Your task to perform on an android device: Go to Reddit.com Image 0: 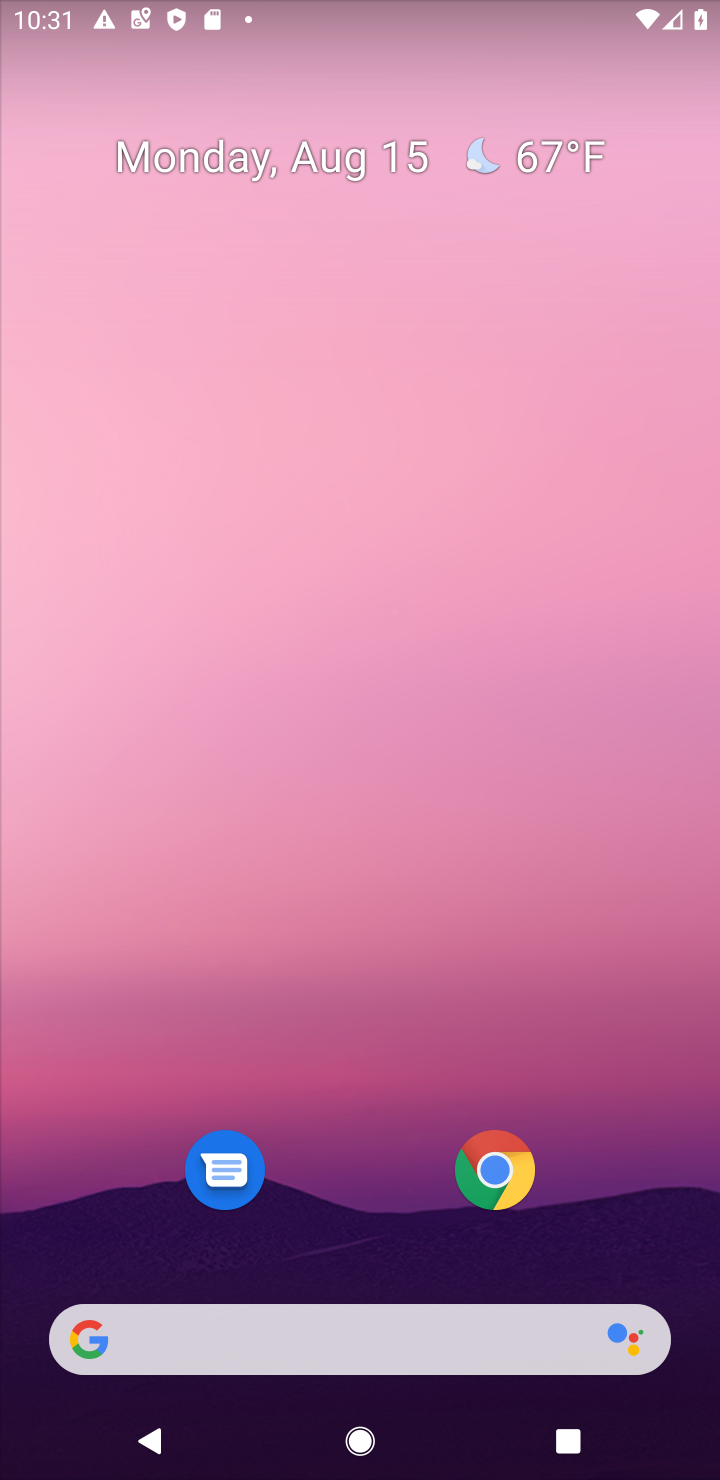
Step 0: click (491, 1161)
Your task to perform on an android device: Go to Reddit.com Image 1: 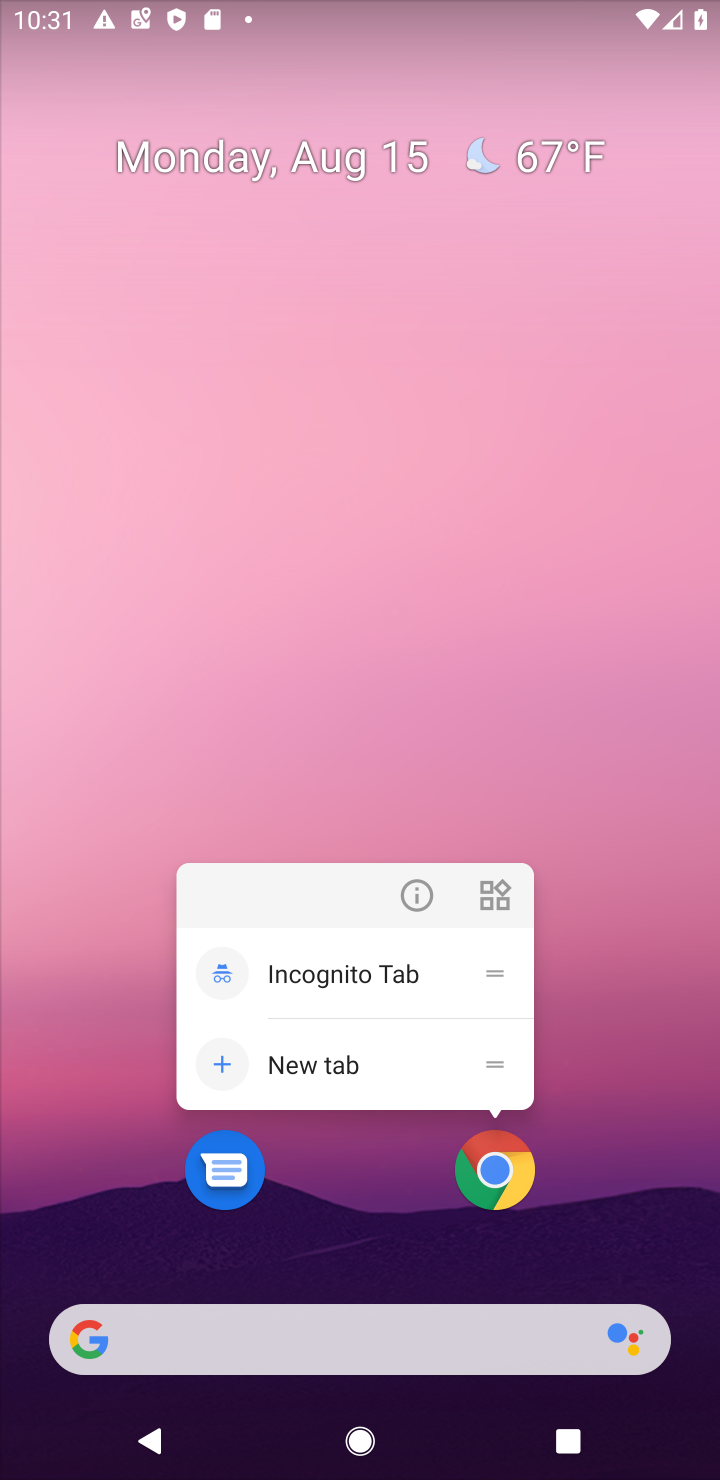
Step 1: click (491, 1158)
Your task to perform on an android device: Go to Reddit.com Image 2: 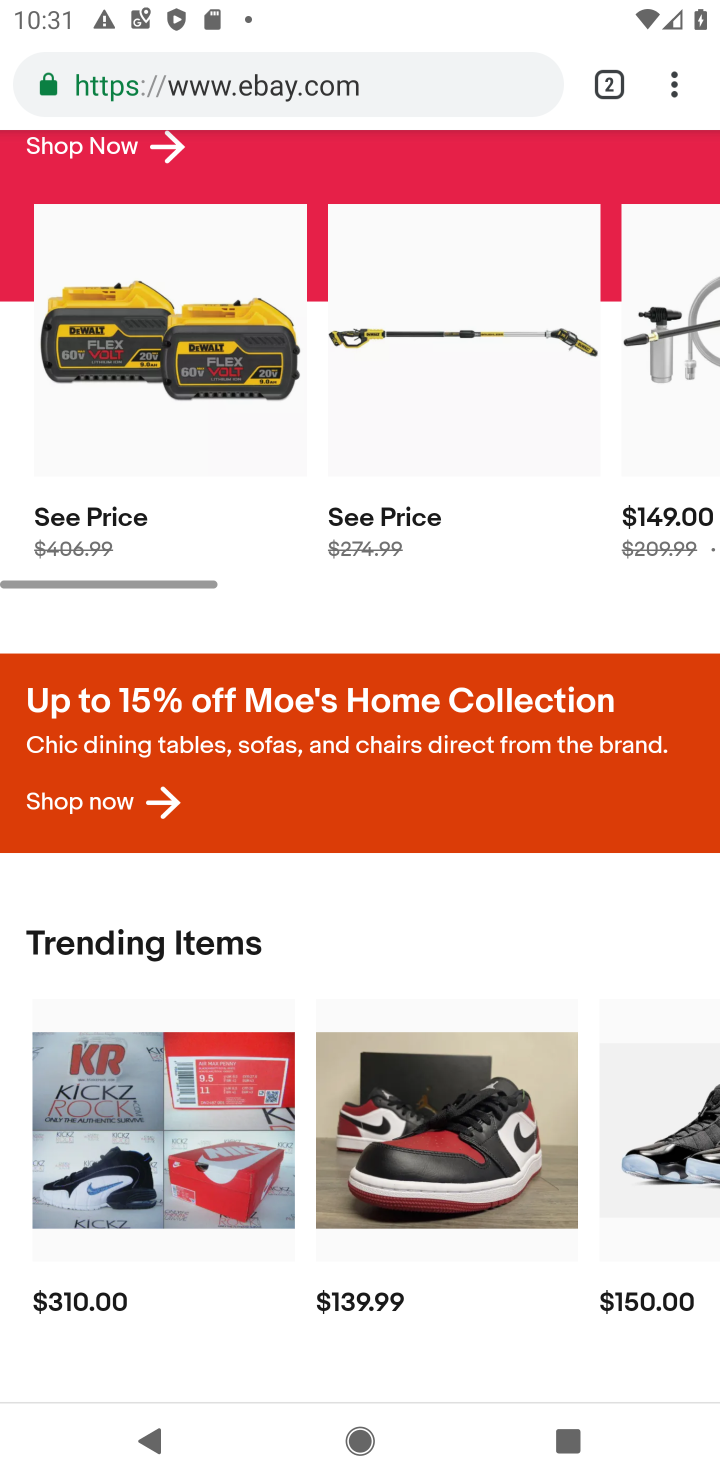
Step 2: click (615, 80)
Your task to perform on an android device: Go to Reddit.com Image 3: 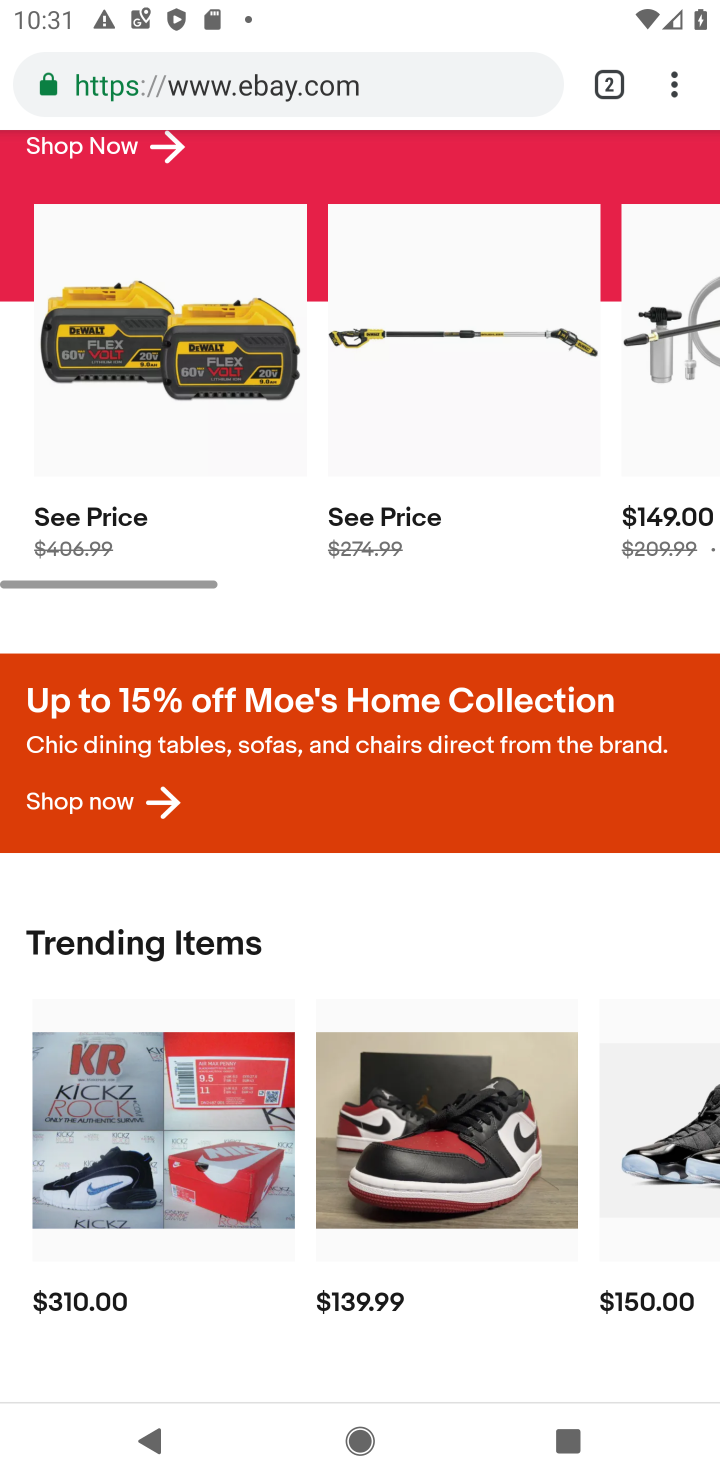
Step 3: click (614, 73)
Your task to perform on an android device: Go to Reddit.com Image 4: 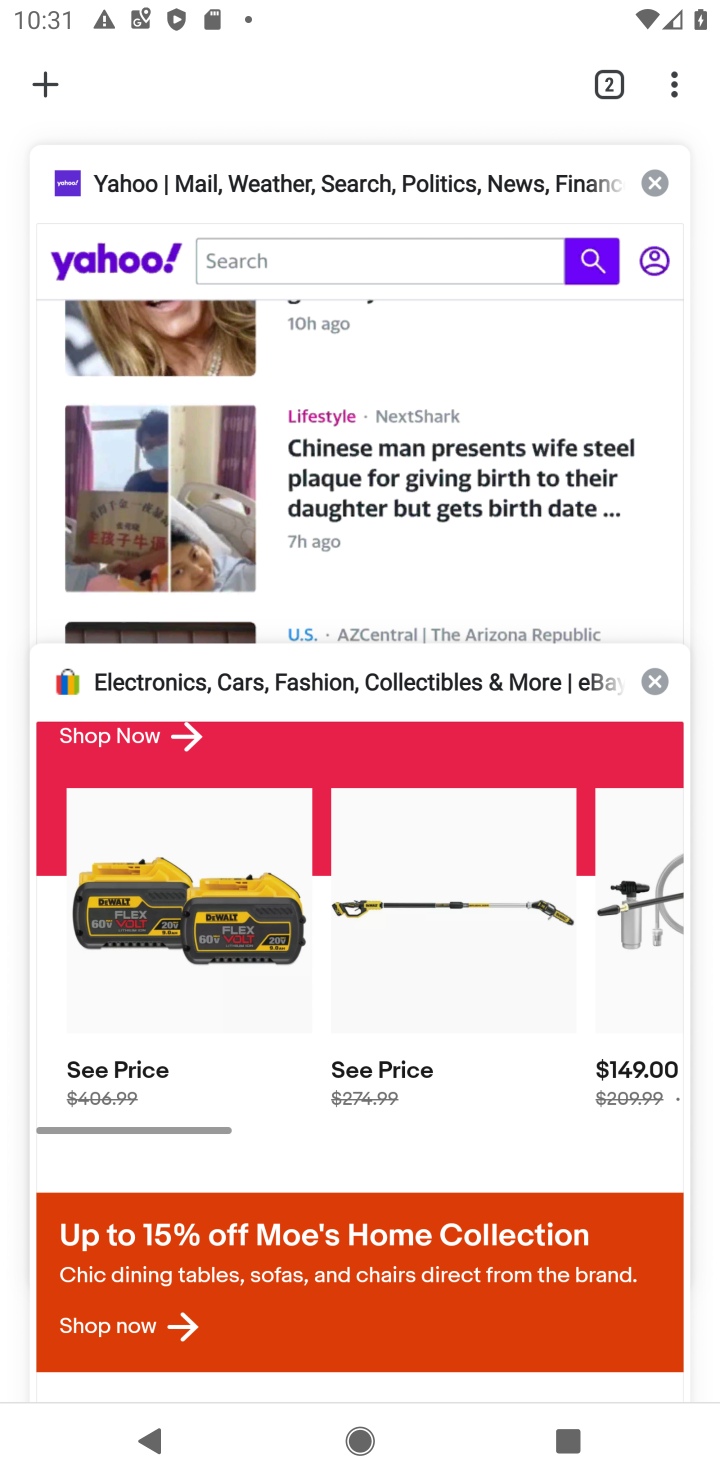
Step 4: click (44, 77)
Your task to perform on an android device: Go to Reddit.com Image 5: 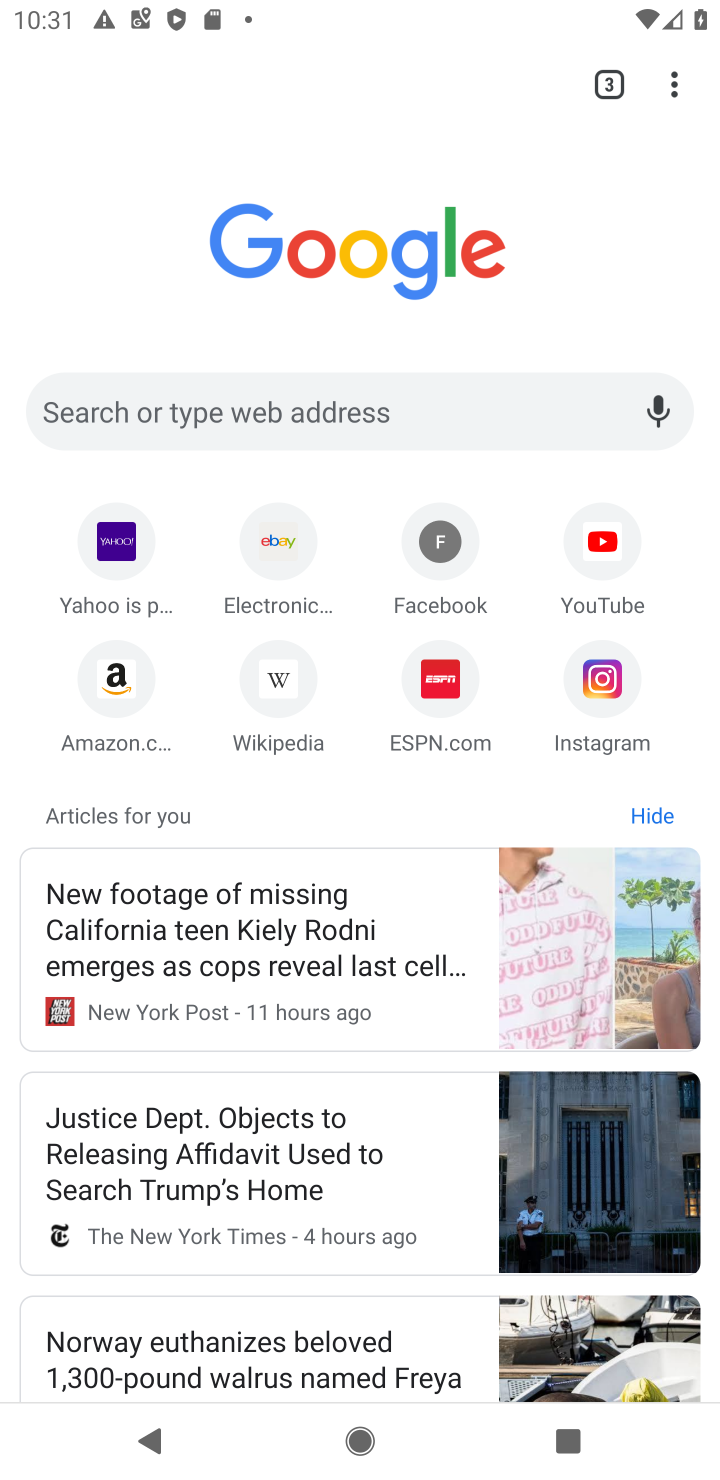
Step 5: click (230, 408)
Your task to perform on an android device: Go to Reddit.com Image 6: 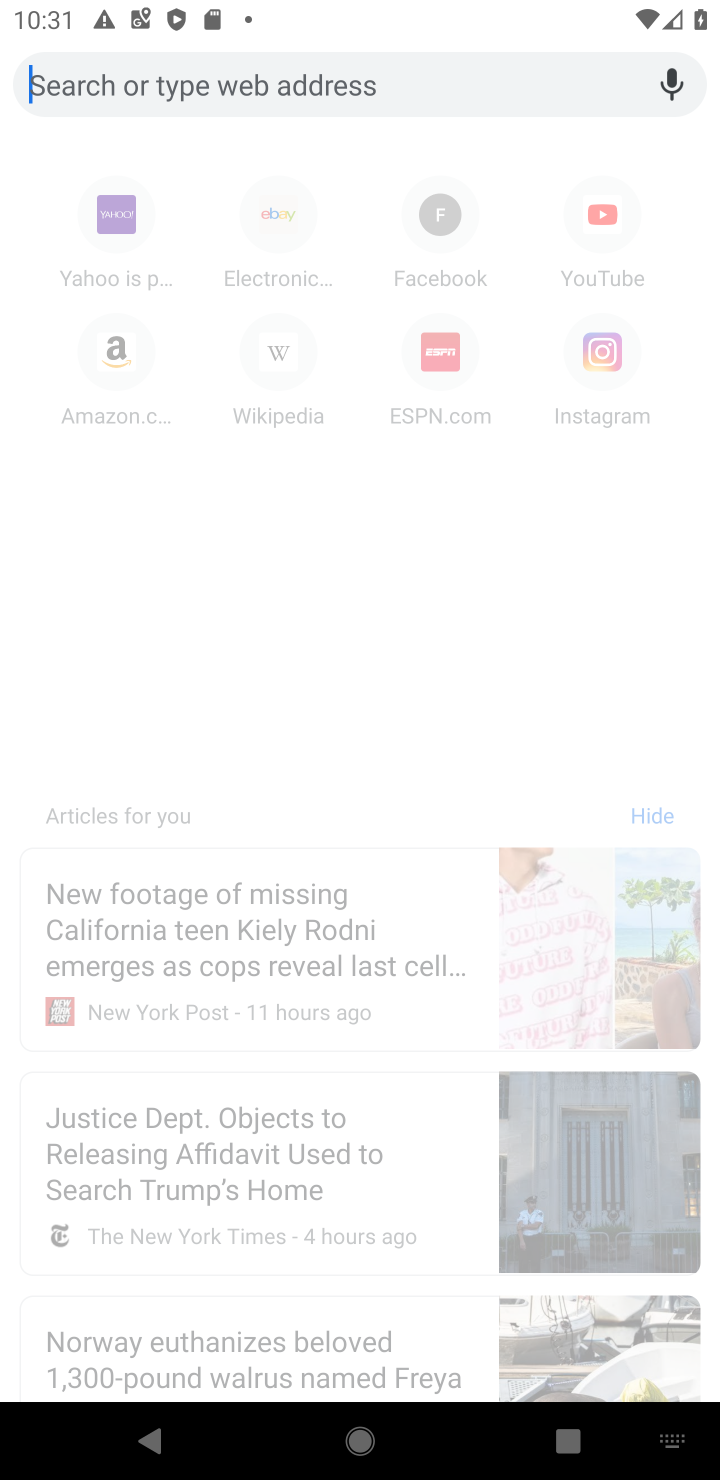
Step 6: type "reddit.com"
Your task to perform on an android device: Go to Reddit.com Image 7: 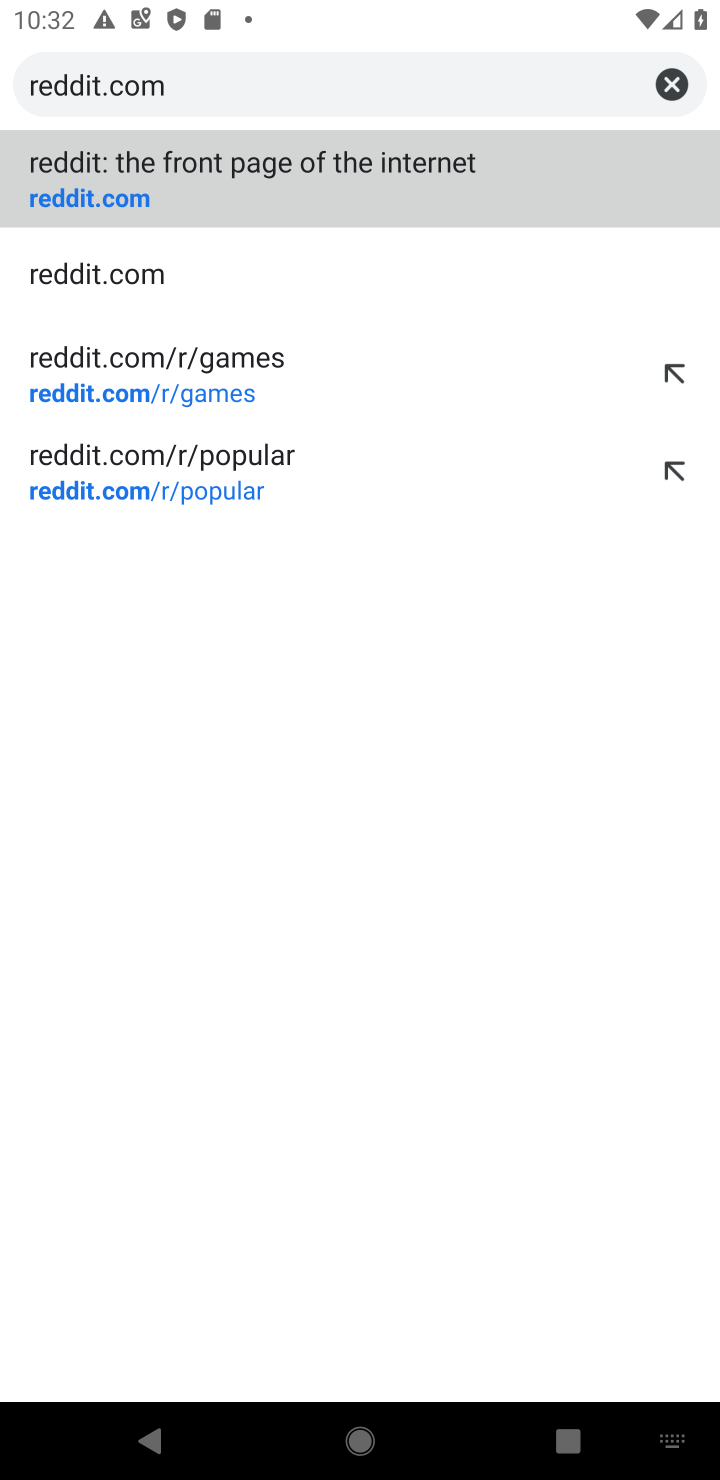
Step 7: click (155, 174)
Your task to perform on an android device: Go to Reddit.com Image 8: 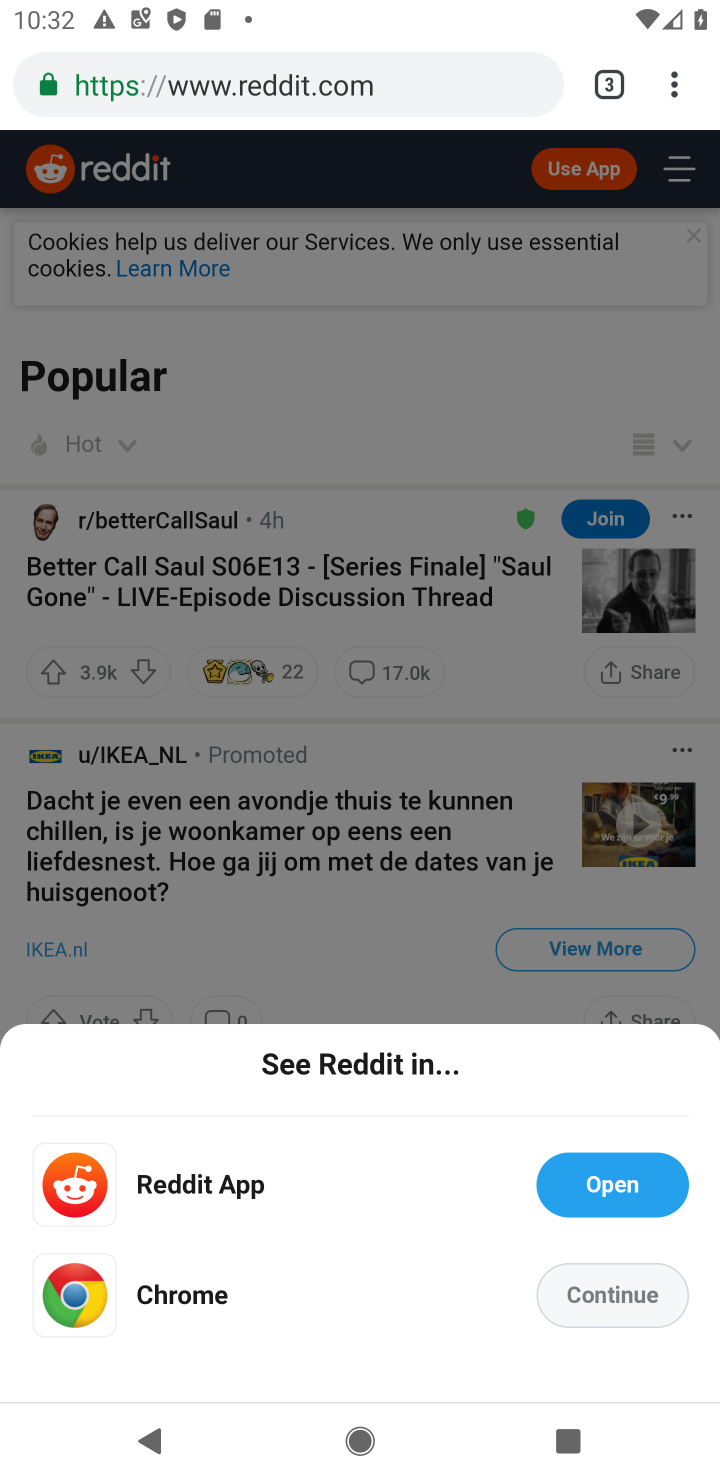
Step 8: click (590, 1285)
Your task to perform on an android device: Go to Reddit.com Image 9: 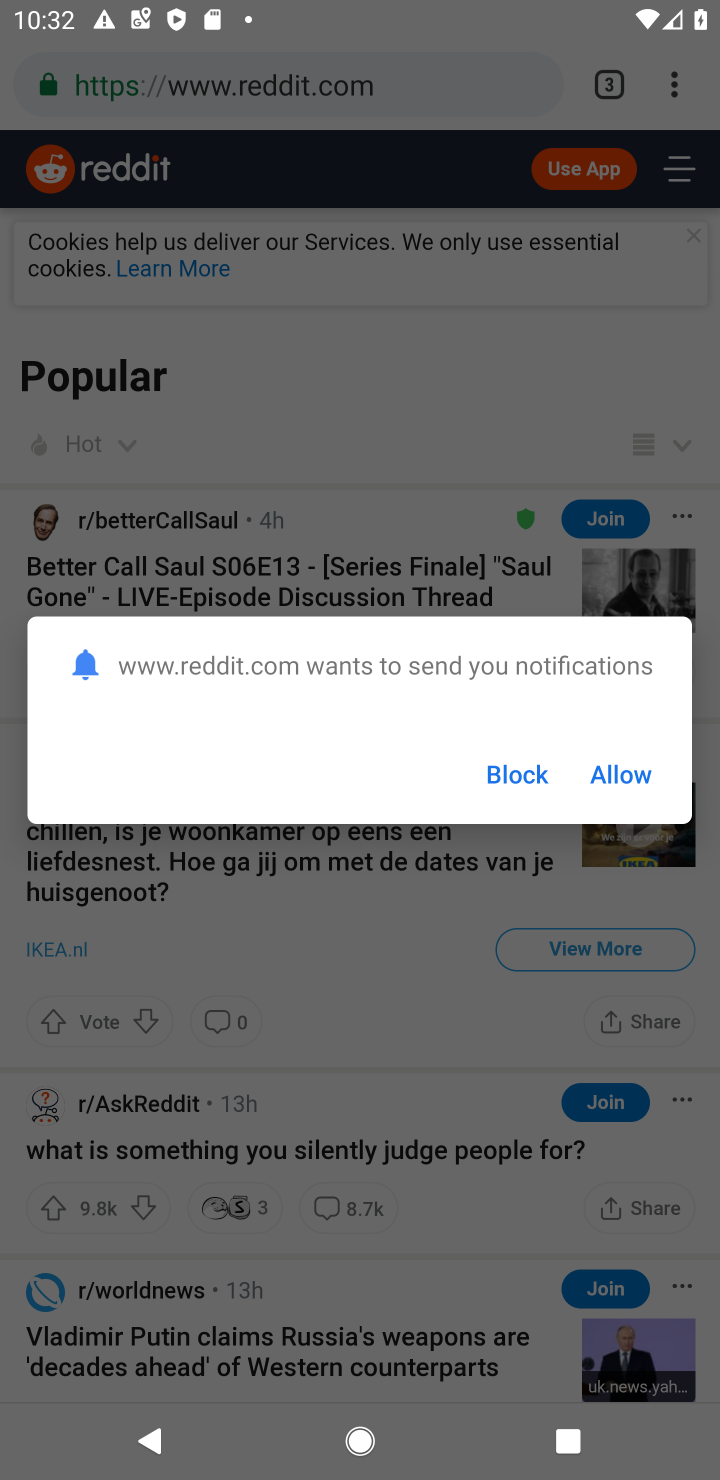
Step 9: click (622, 778)
Your task to perform on an android device: Go to Reddit.com Image 10: 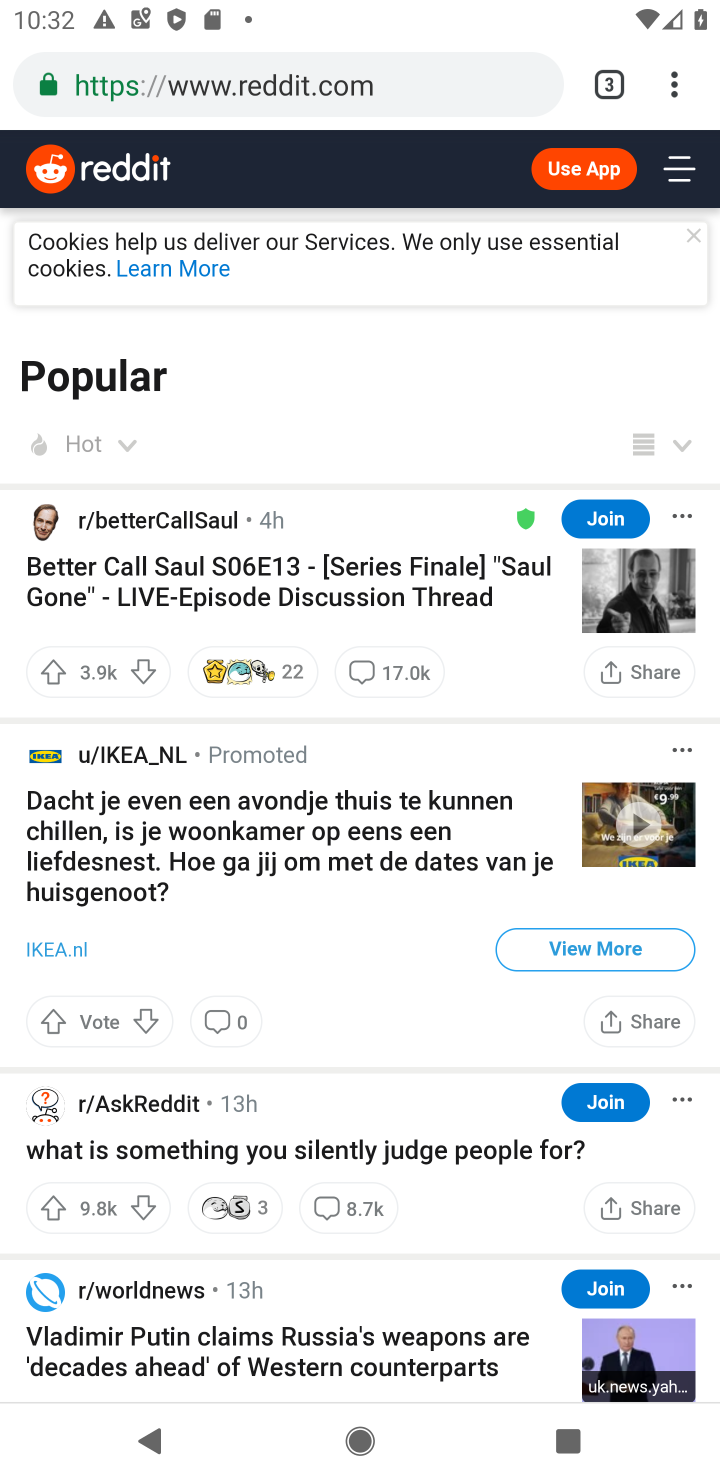
Step 10: task complete